Your task to perform on an android device: Open Youtube and go to the subscriptions tab Image 0: 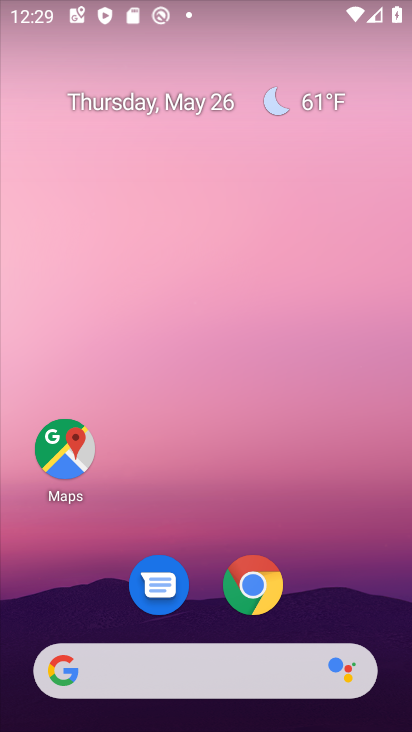
Step 0: drag from (238, 478) to (292, 27)
Your task to perform on an android device: Open Youtube and go to the subscriptions tab Image 1: 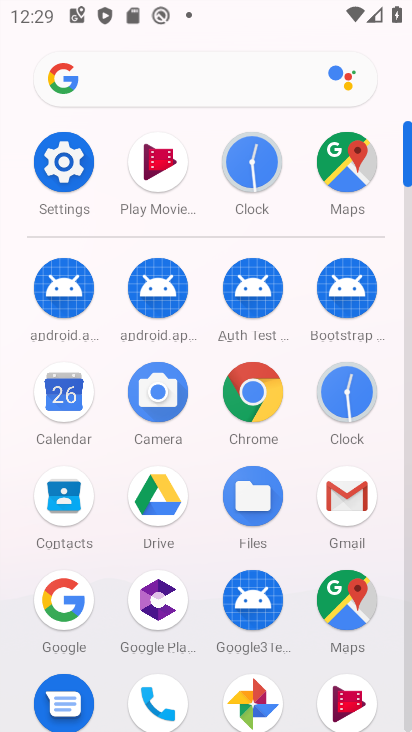
Step 1: drag from (316, 492) to (341, 132)
Your task to perform on an android device: Open Youtube and go to the subscriptions tab Image 2: 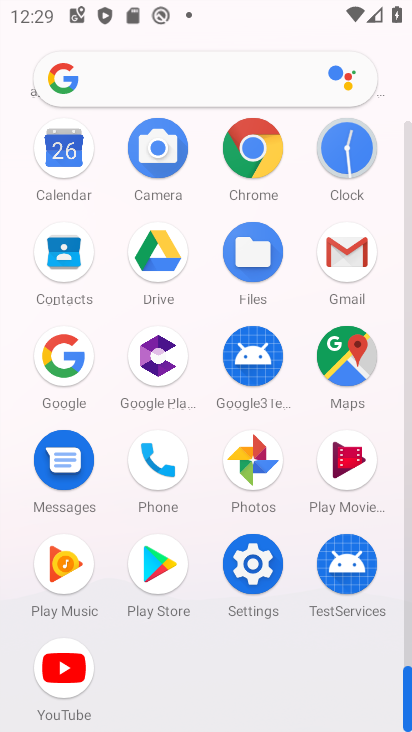
Step 2: click (74, 664)
Your task to perform on an android device: Open Youtube and go to the subscriptions tab Image 3: 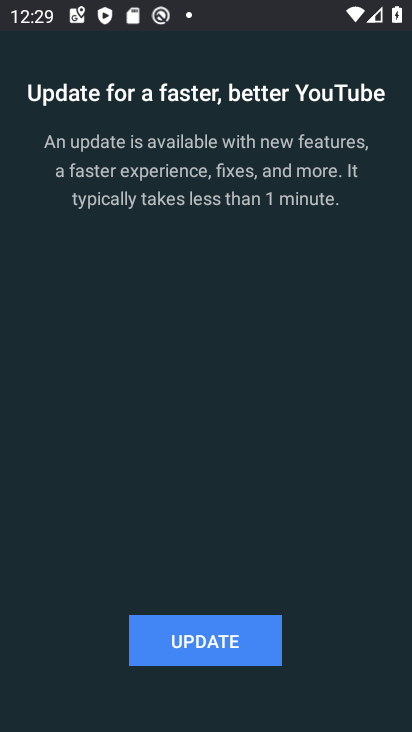
Step 3: click (207, 637)
Your task to perform on an android device: Open Youtube and go to the subscriptions tab Image 4: 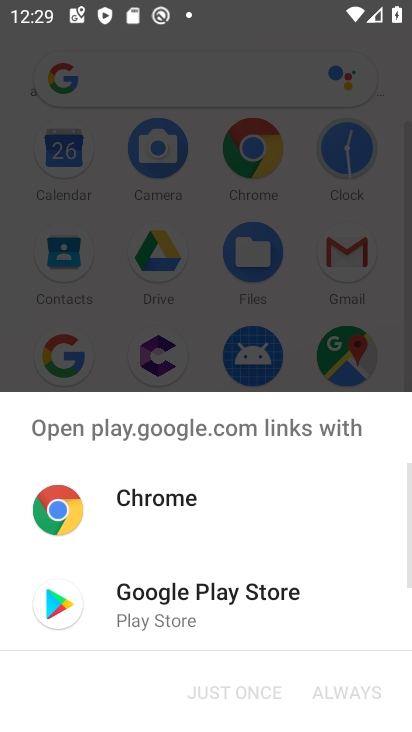
Step 4: click (205, 587)
Your task to perform on an android device: Open Youtube and go to the subscriptions tab Image 5: 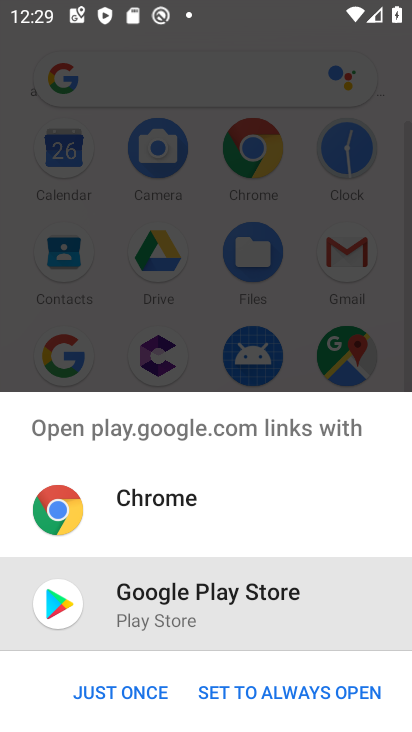
Step 5: click (129, 684)
Your task to perform on an android device: Open Youtube and go to the subscriptions tab Image 6: 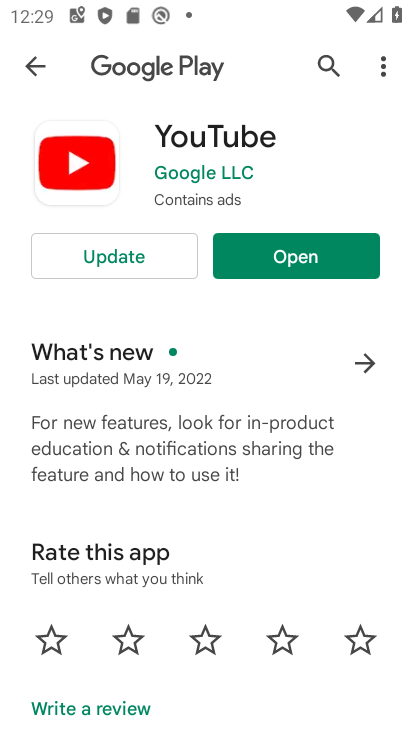
Step 6: click (138, 259)
Your task to perform on an android device: Open Youtube and go to the subscriptions tab Image 7: 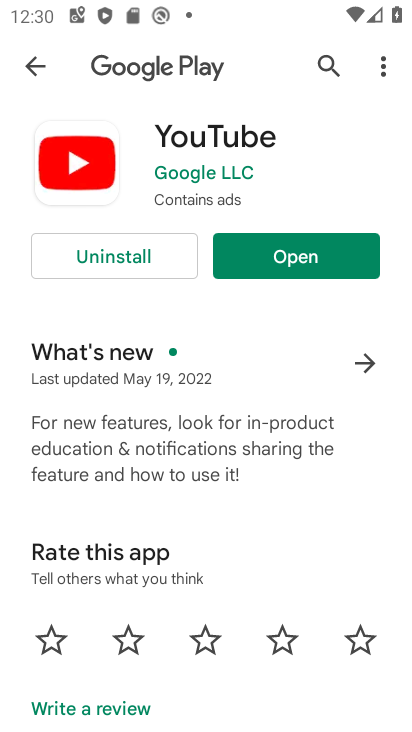
Step 7: click (357, 253)
Your task to perform on an android device: Open Youtube and go to the subscriptions tab Image 8: 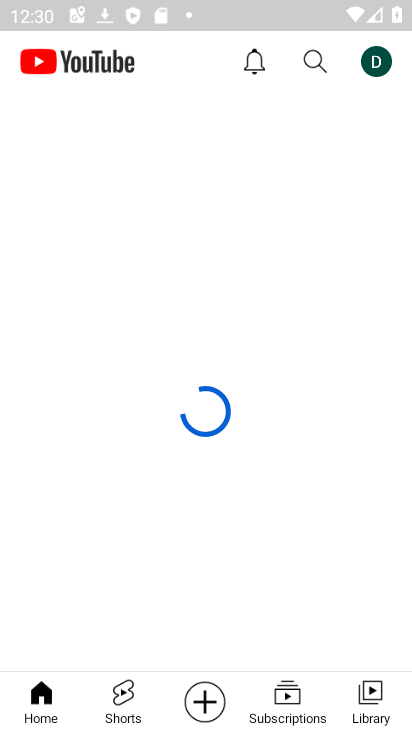
Step 8: click (289, 700)
Your task to perform on an android device: Open Youtube and go to the subscriptions tab Image 9: 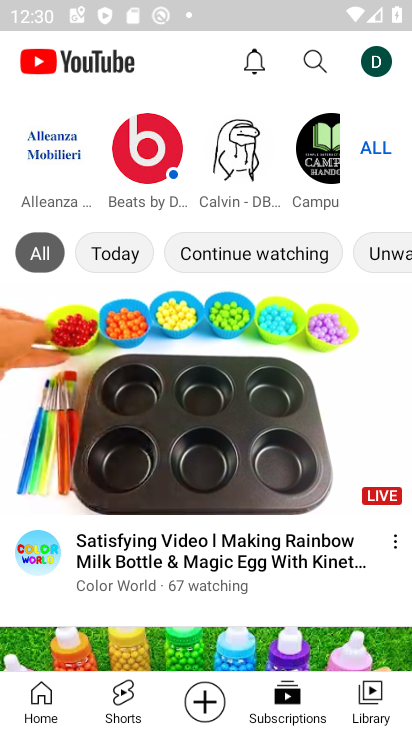
Step 9: task complete